Your task to perform on an android device: turn on airplane mode Image 0: 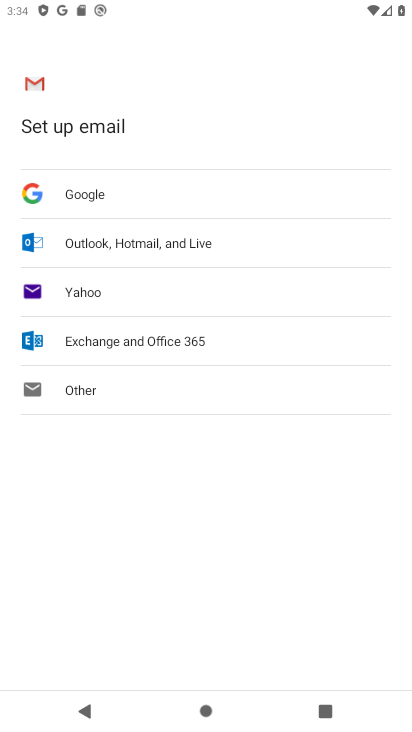
Step 0: click (136, 597)
Your task to perform on an android device: turn on airplane mode Image 1: 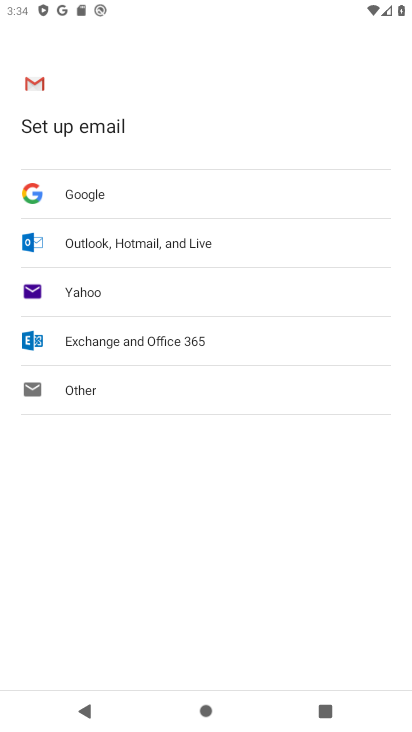
Step 1: drag from (177, 9) to (181, 342)
Your task to perform on an android device: turn on airplane mode Image 2: 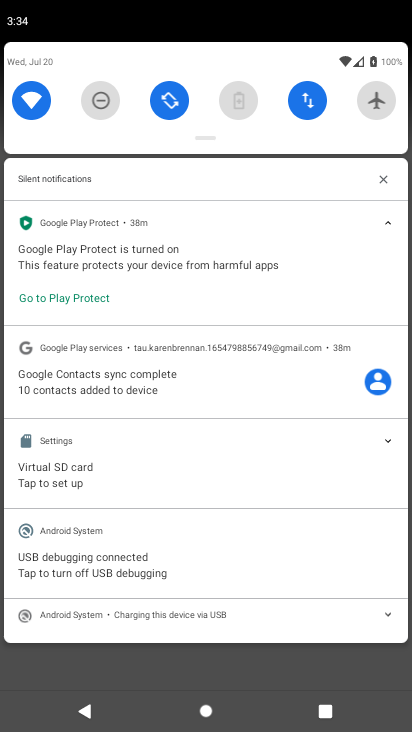
Step 2: click (381, 92)
Your task to perform on an android device: turn on airplane mode Image 3: 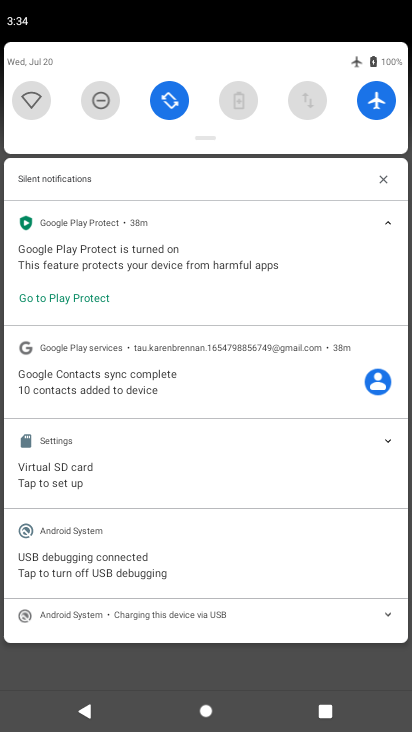
Step 3: task complete